Your task to perform on an android device: open wifi settings Image 0: 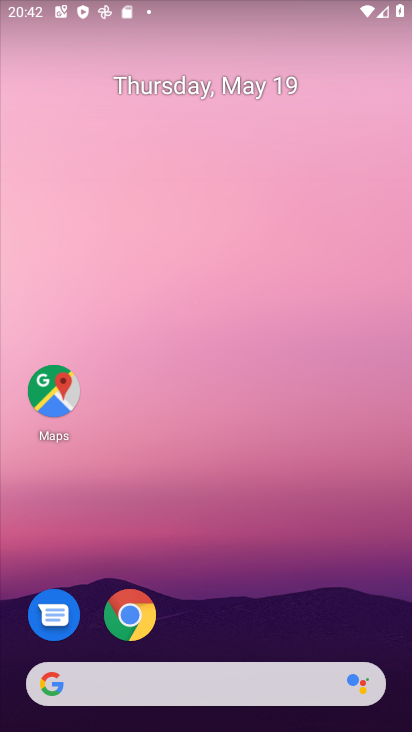
Step 0: drag from (266, 553) to (292, 51)
Your task to perform on an android device: open wifi settings Image 1: 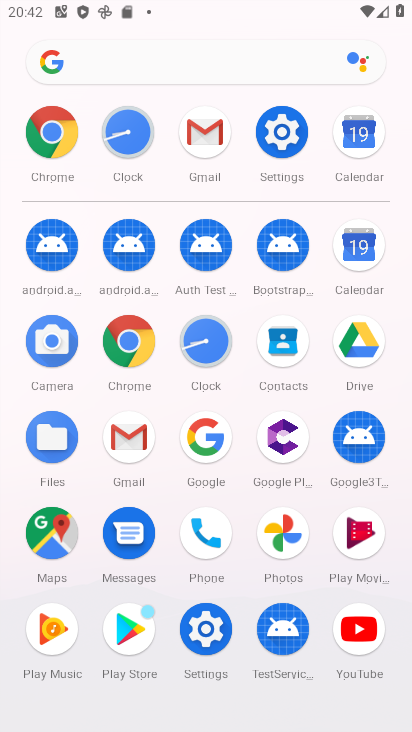
Step 1: click (279, 127)
Your task to perform on an android device: open wifi settings Image 2: 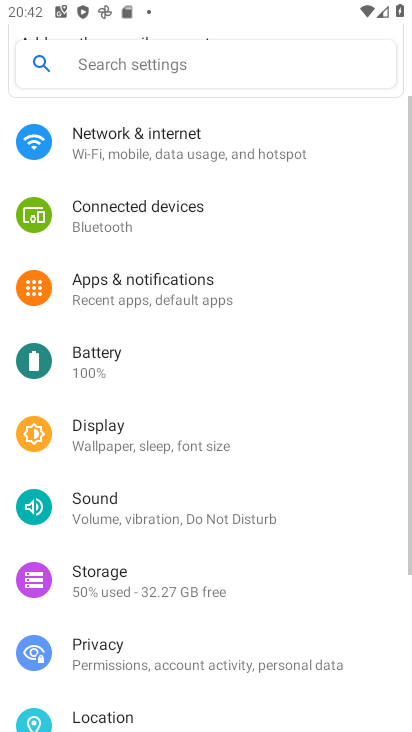
Step 2: click (221, 140)
Your task to perform on an android device: open wifi settings Image 3: 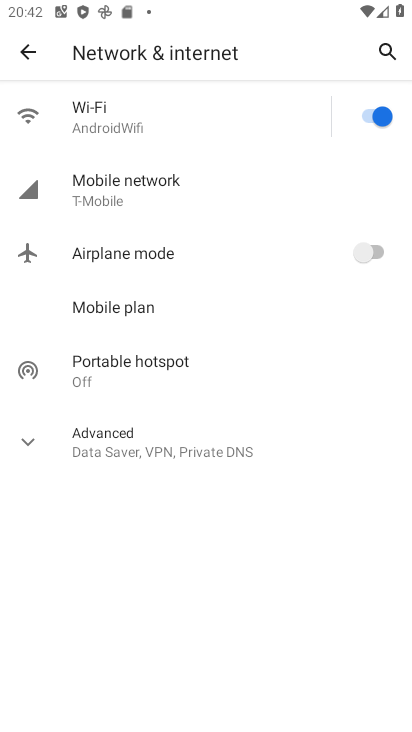
Step 3: click (152, 113)
Your task to perform on an android device: open wifi settings Image 4: 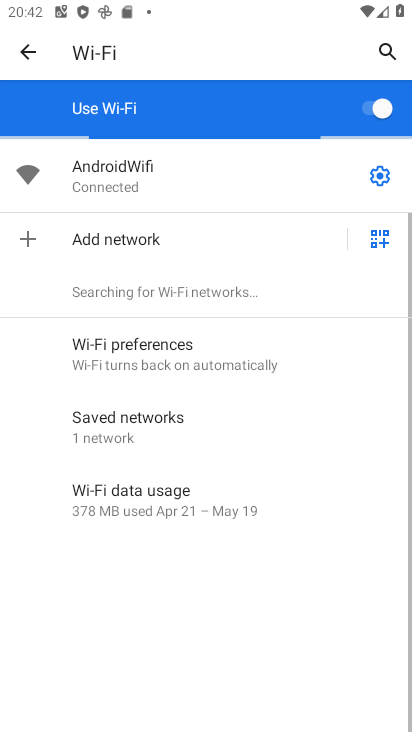
Step 4: click (375, 175)
Your task to perform on an android device: open wifi settings Image 5: 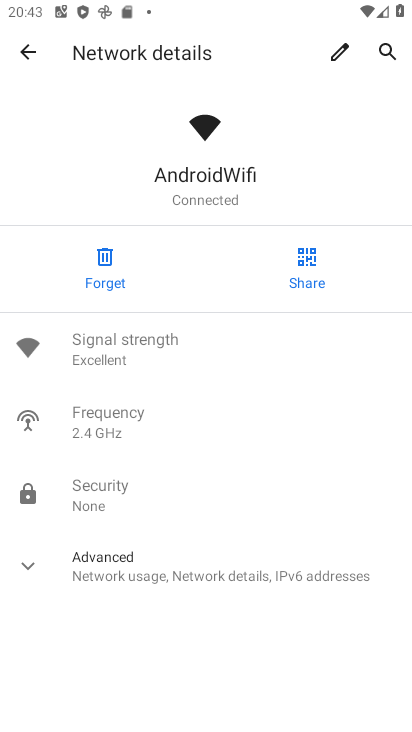
Step 5: task complete